Your task to perform on an android device: Go to accessibility settings Image 0: 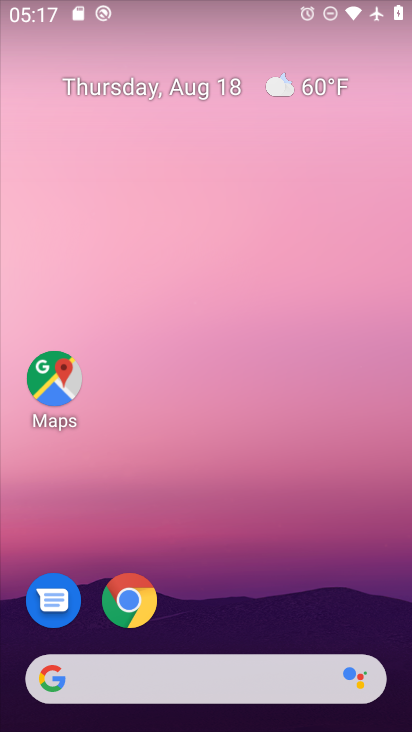
Step 0: press home button
Your task to perform on an android device: Go to accessibility settings Image 1: 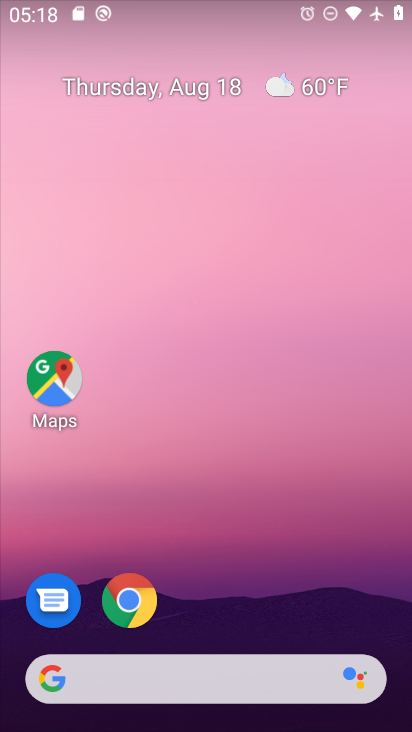
Step 1: drag from (219, 632) to (234, 5)
Your task to perform on an android device: Go to accessibility settings Image 2: 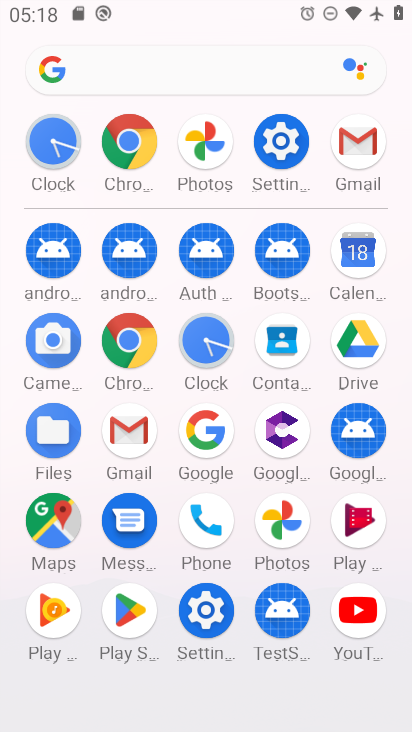
Step 2: click (297, 145)
Your task to perform on an android device: Go to accessibility settings Image 3: 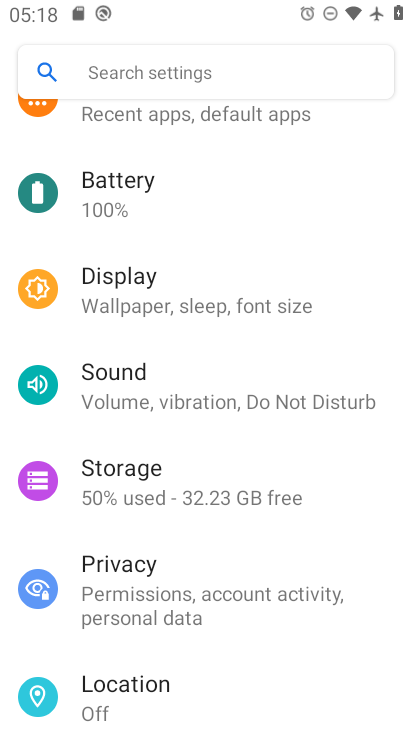
Step 3: drag from (228, 657) to (204, 238)
Your task to perform on an android device: Go to accessibility settings Image 4: 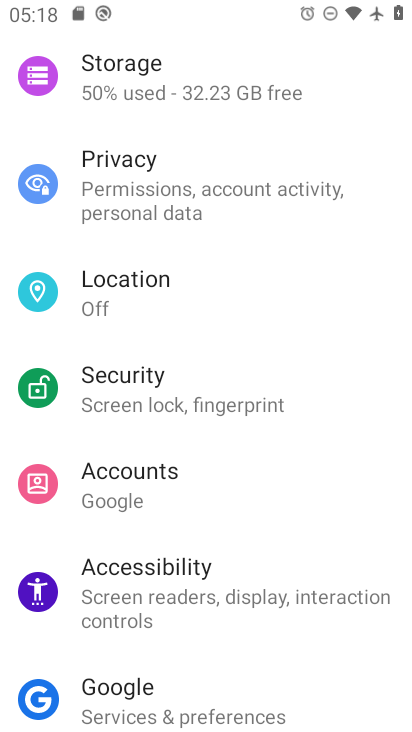
Step 4: click (155, 591)
Your task to perform on an android device: Go to accessibility settings Image 5: 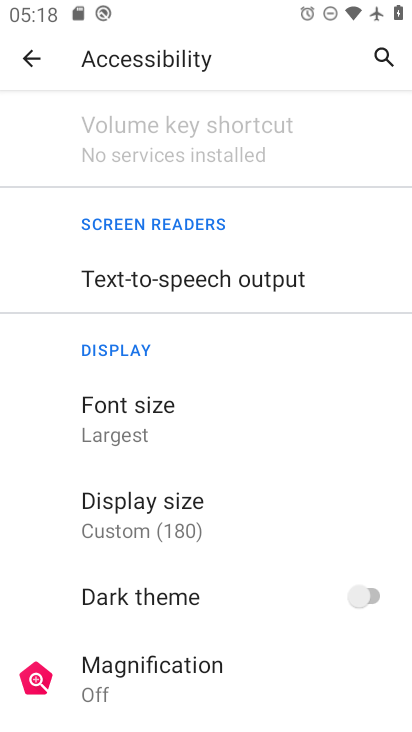
Step 5: task complete